Your task to perform on an android device: open a bookmark in the chrome app Image 0: 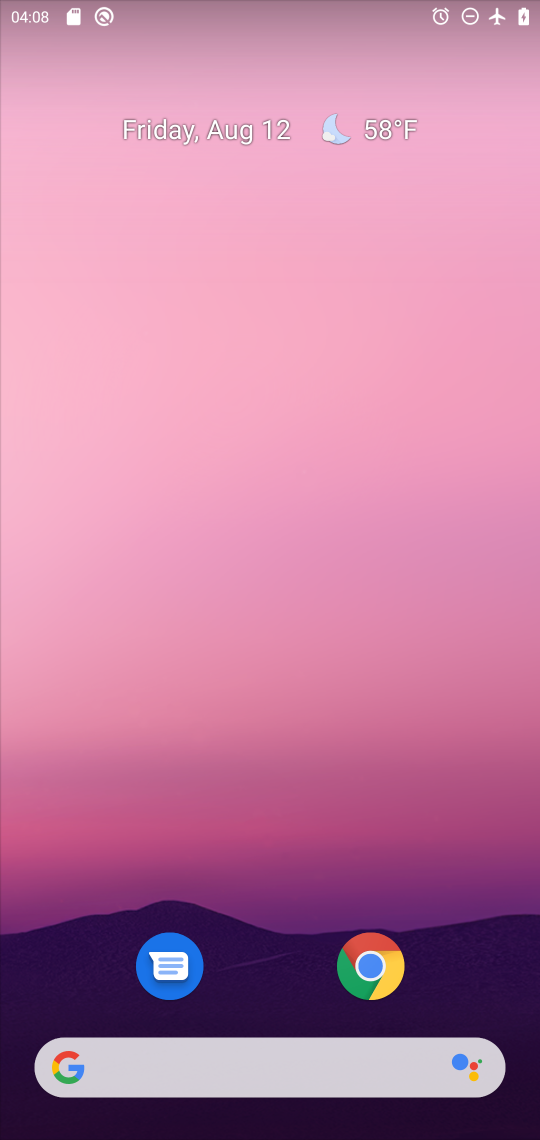
Step 0: drag from (401, 856) to (333, 3)
Your task to perform on an android device: open a bookmark in the chrome app Image 1: 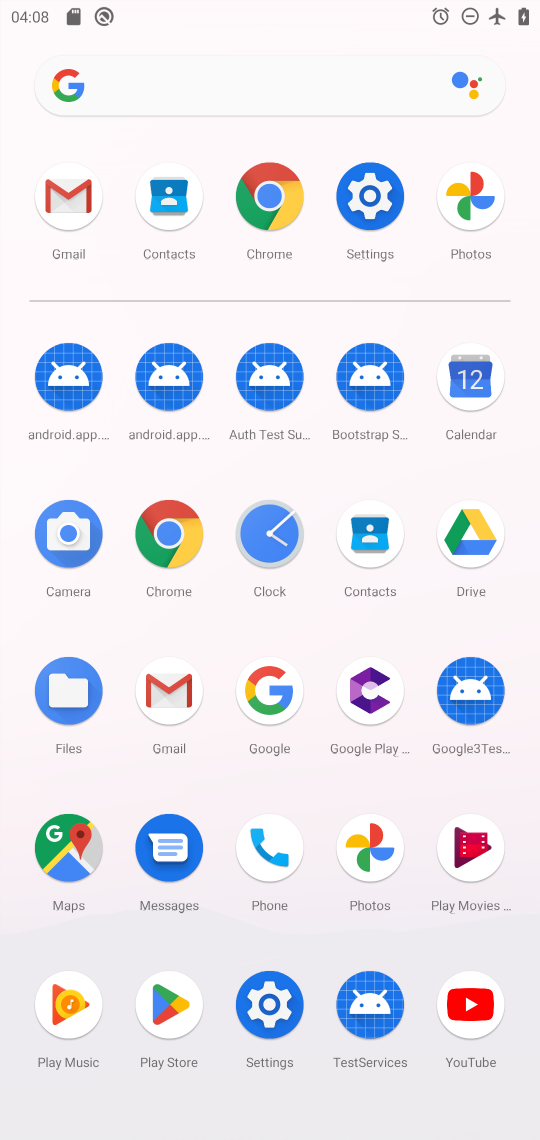
Step 1: click (156, 524)
Your task to perform on an android device: open a bookmark in the chrome app Image 2: 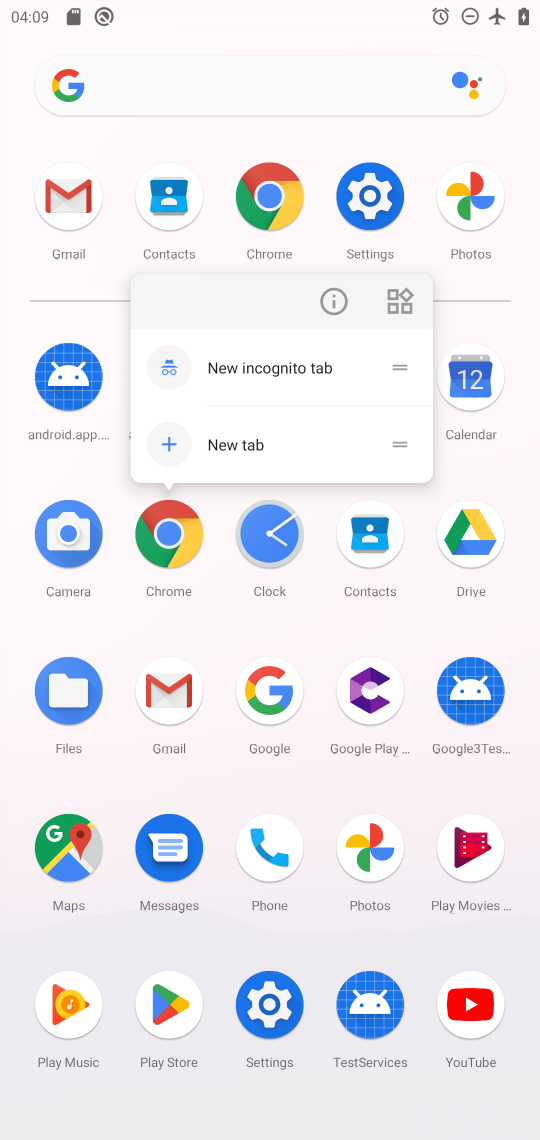
Step 2: click (177, 532)
Your task to perform on an android device: open a bookmark in the chrome app Image 3: 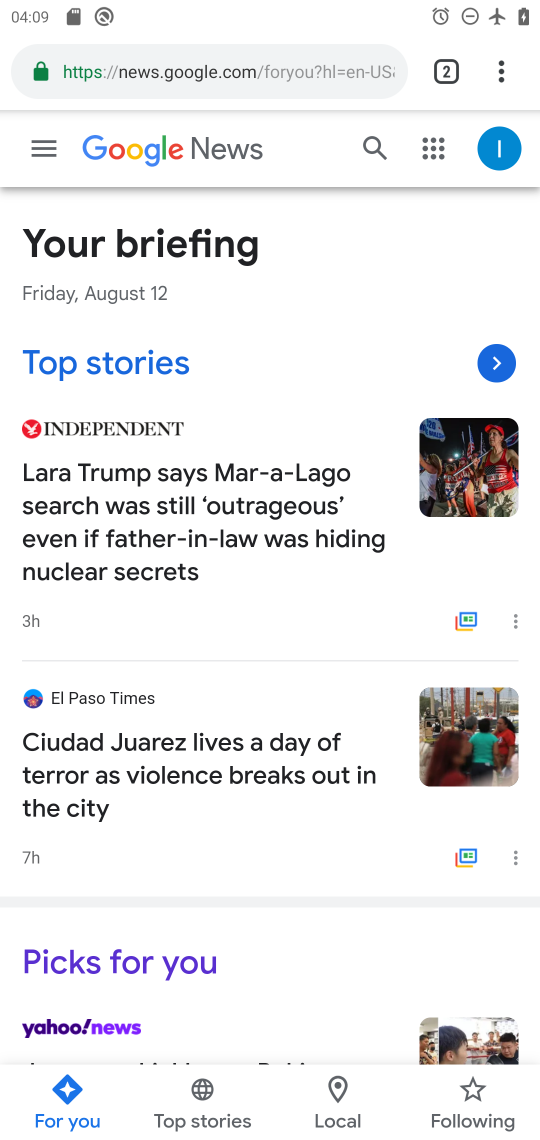
Step 3: drag from (517, 60) to (251, 276)
Your task to perform on an android device: open a bookmark in the chrome app Image 4: 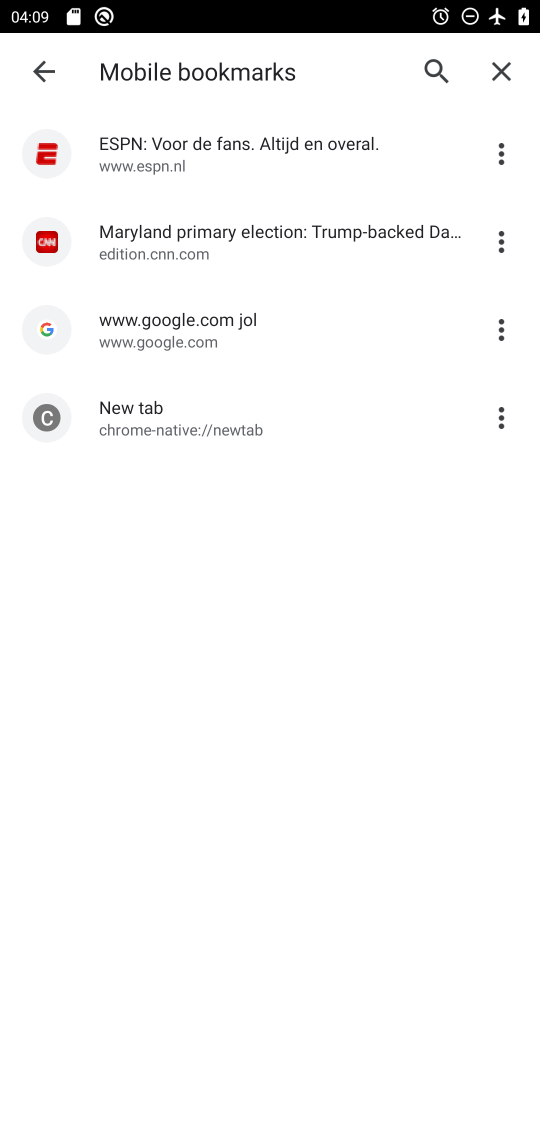
Step 4: click (215, 155)
Your task to perform on an android device: open a bookmark in the chrome app Image 5: 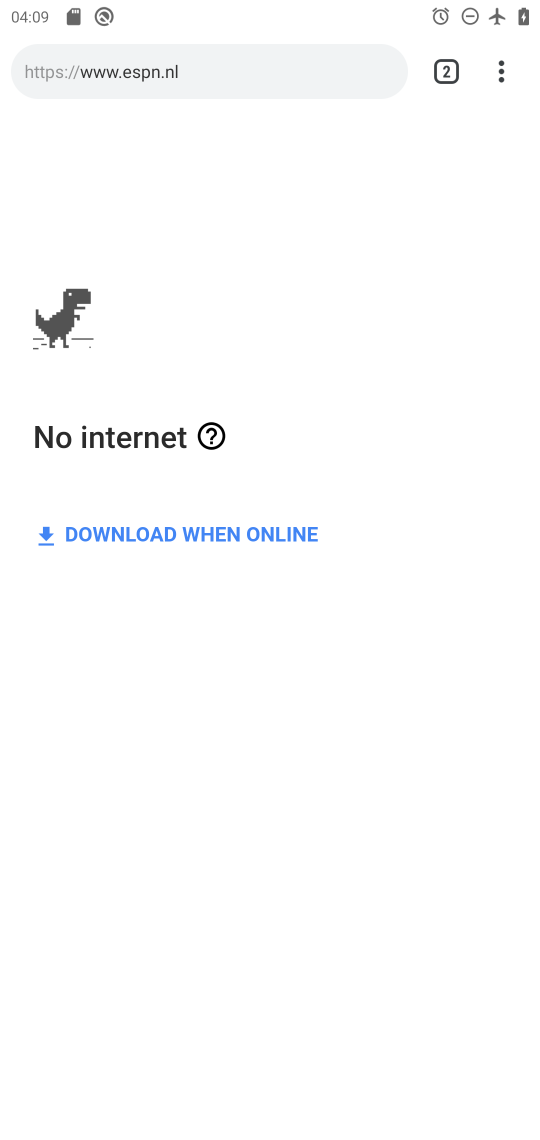
Step 5: task complete